Your task to perform on an android device: Open Youtube and go to "Your channel" Image 0: 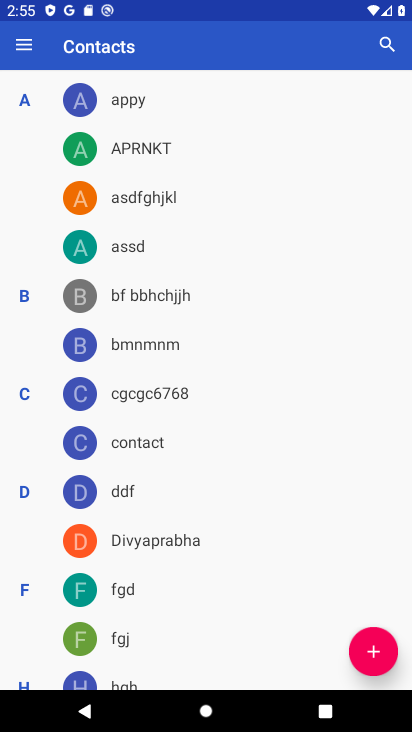
Step 0: press home button
Your task to perform on an android device: Open Youtube and go to "Your channel" Image 1: 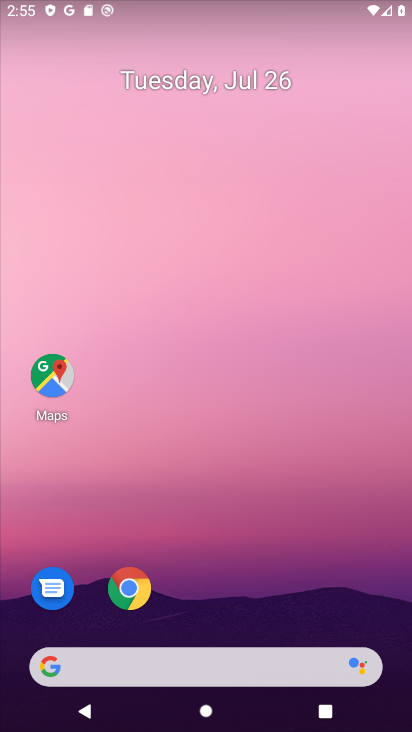
Step 1: drag from (243, 619) to (245, 102)
Your task to perform on an android device: Open Youtube and go to "Your channel" Image 2: 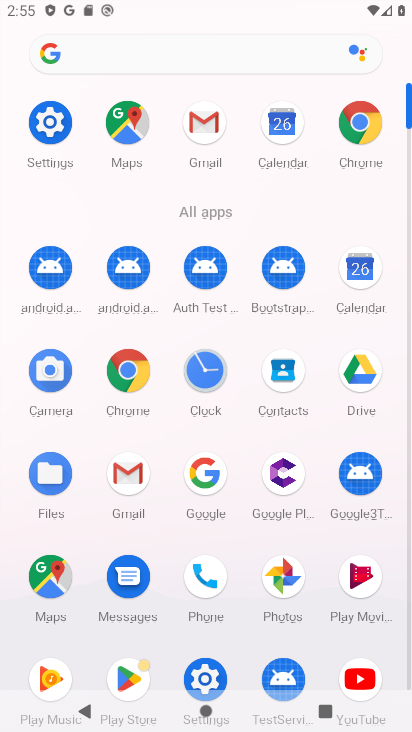
Step 2: click (362, 671)
Your task to perform on an android device: Open Youtube and go to "Your channel" Image 3: 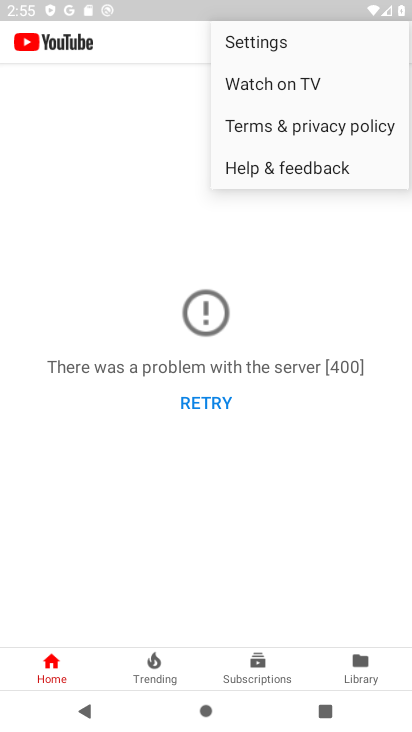
Step 3: task complete